Your task to perform on an android device: Open Maps and search for coffee Image 0: 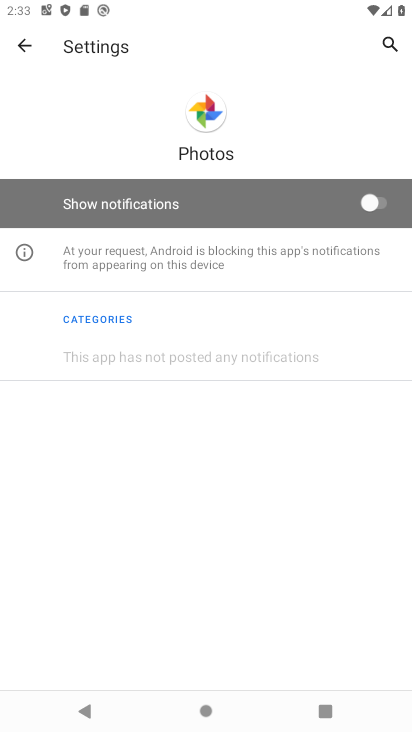
Step 0: press home button
Your task to perform on an android device: Open Maps and search for coffee Image 1: 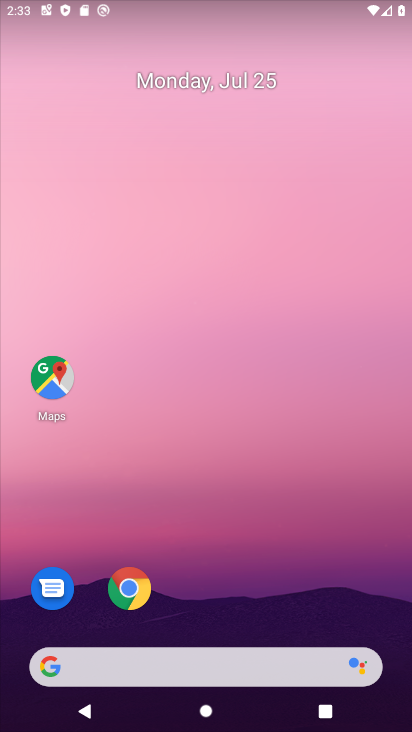
Step 1: drag from (211, 611) to (202, 14)
Your task to perform on an android device: Open Maps and search for coffee Image 2: 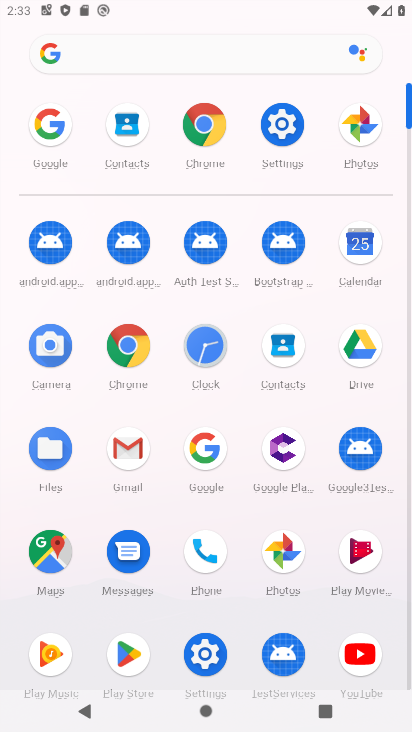
Step 2: drag from (270, 321) to (303, 609)
Your task to perform on an android device: Open Maps and search for coffee Image 3: 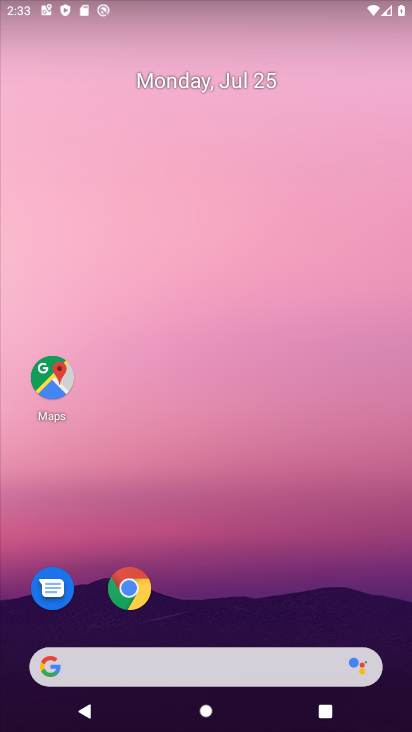
Step 3: click (46, 369)
Your task to perform on an android device: Open Maps and search for coffee Image 4: 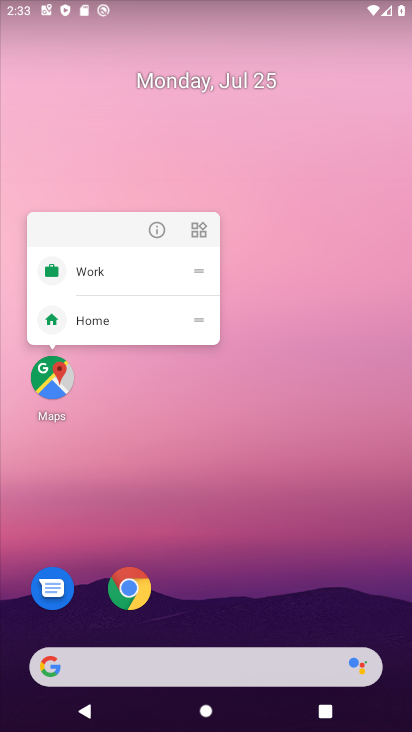
Step 4: click (42, 394)
Your task to perform on an android device: Open Maps and search for coffee Image 5: 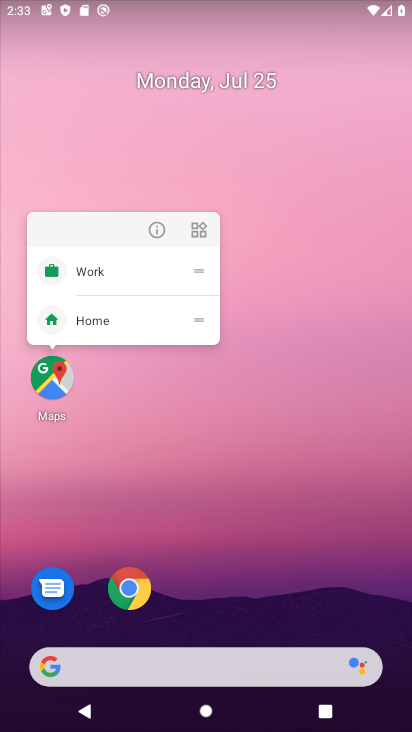
Step 5: click (42, 394)
Your task to perform on an android device: Open Maps and search for coffee Image 6: 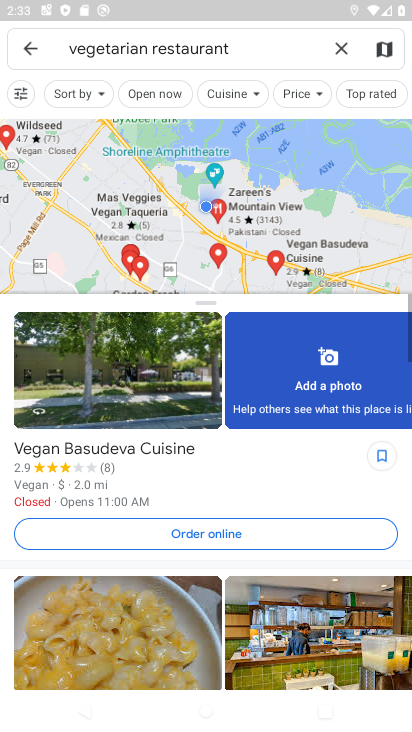
Step 6: click (295, 47)
Your task to perform on an android device: Open Maps and search for coffee Image 7: 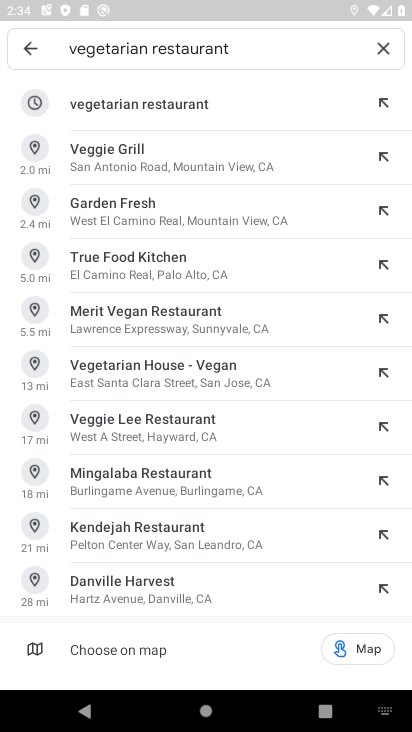
Step 7: click (389, 50)
Your task to perform on an android device: Open Maps and search for coffee Image 8: 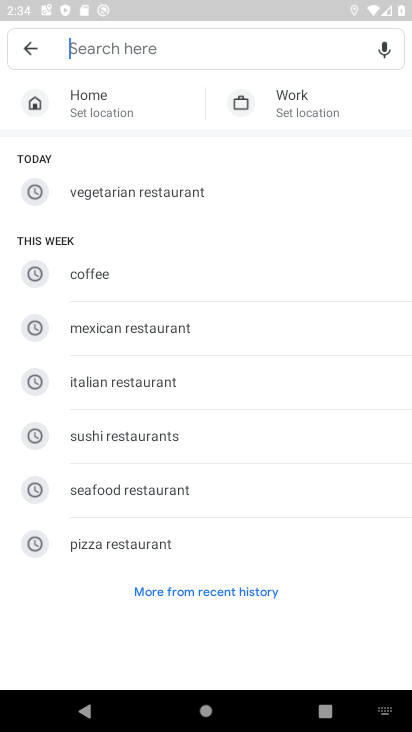
Step 8: click (106, 273)
Your task to perform on an android device: Open Maps and search for coffee Image 9: 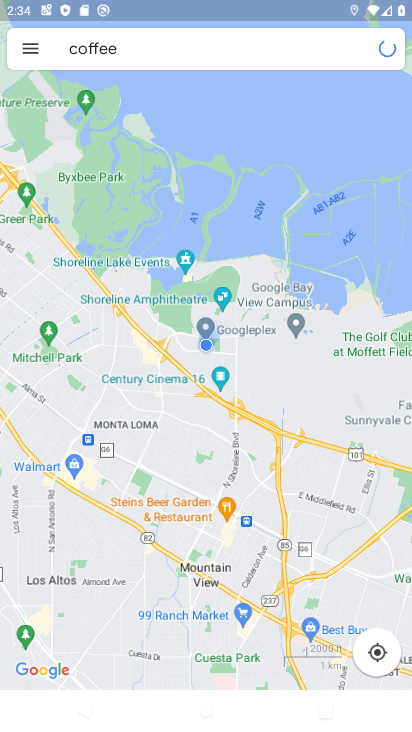
Step 9: task complete